Your task to perform on an android device: What's the weather going to be this weekend? Image 0: 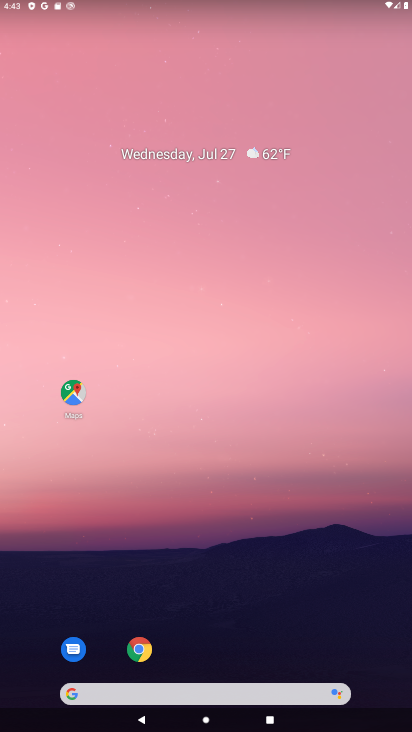
Step 0: click (188, 697)
Your task to perform on an android device: What's the weather going to be this weekend? Image 1: 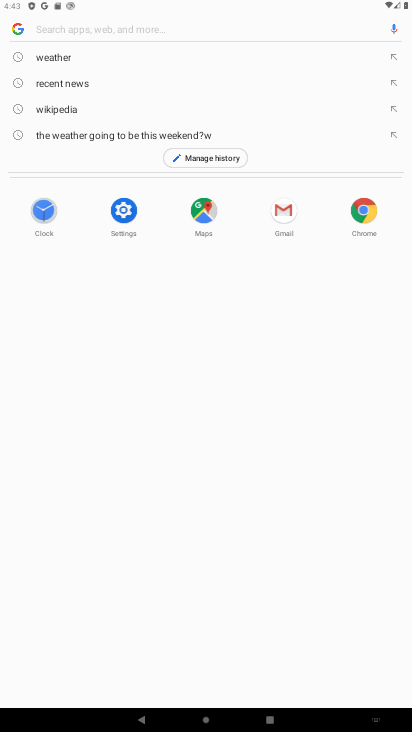
Step 1: type "What's the weather going to be this weekend?"
Your task to perform on an android device: What's the weather going to be this weekend? Image 2: 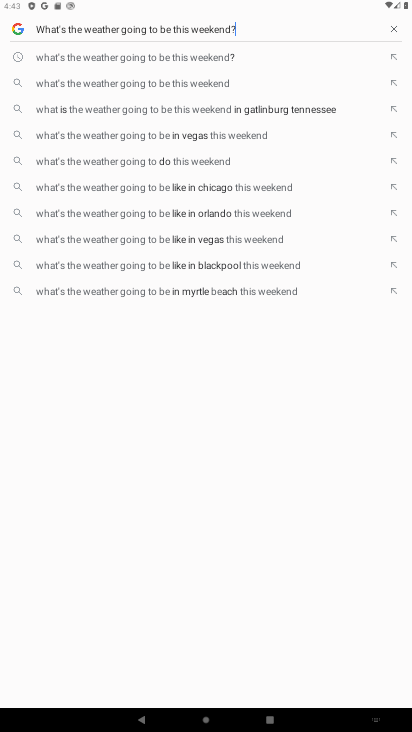
Step 2: press enter
Your task to perform on an android device: What's the weather going to be this weekend? Image 3: 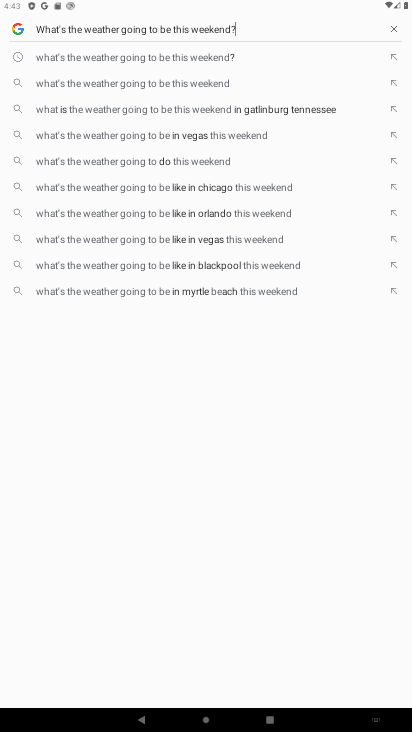
Step 3: type ""
Your task to perform on an android device: What's the weather going to be this weekend? Image 4: 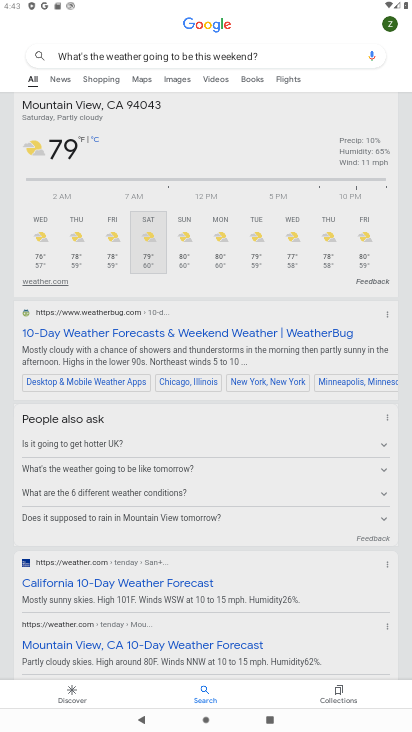
Step 4: task complete